Your task to perform on an android device: search for starred emails in the gmail app Image 0: 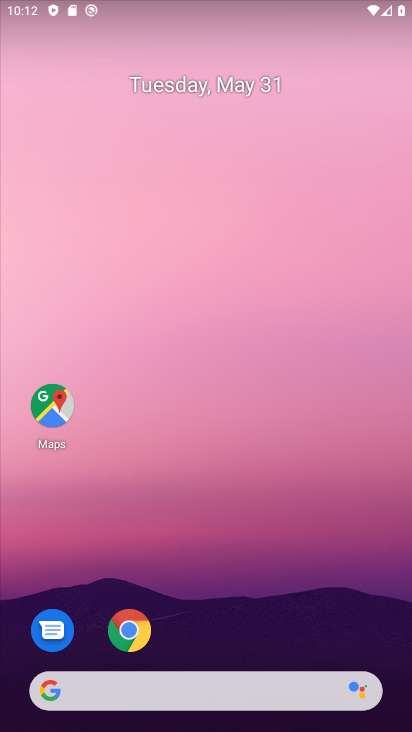
Step 0: drag from (255, 634) to (262, 134)
Your task to perform on an android device: search for starred emails in the gmail app Image 1: 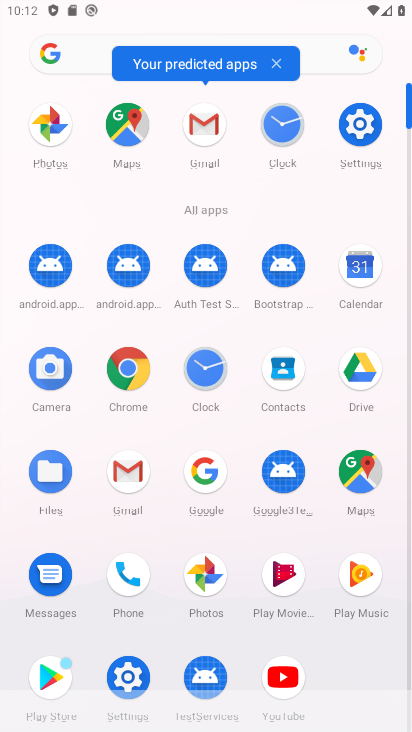
Step 1: click (214, 127)
Your task to perform on an android device: search for starred emails in the gmail app Image 2: 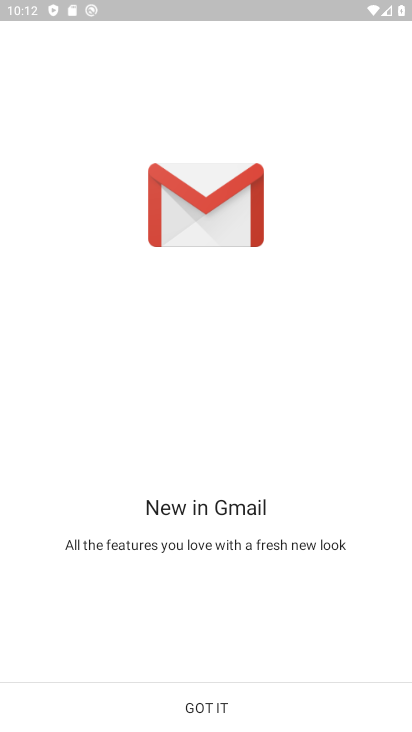
Step 2: click (214, 673)
Your task to perform on an android device: search for starred emails in the gmail app Image 3: 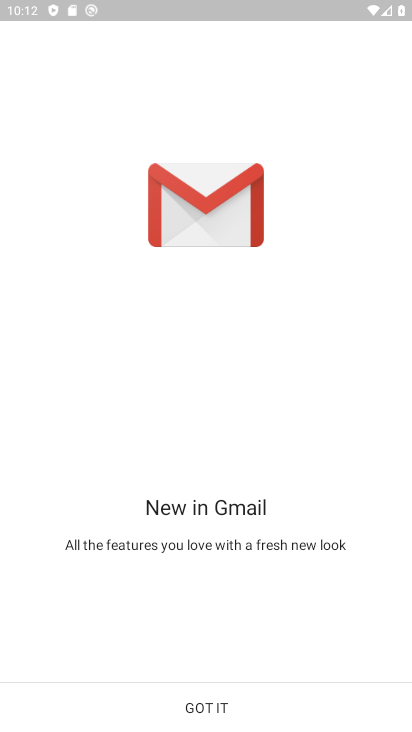
Step 3: click (215, 690)
Your task to perform on an android device: search for starred emails in the gmail app Image 4: 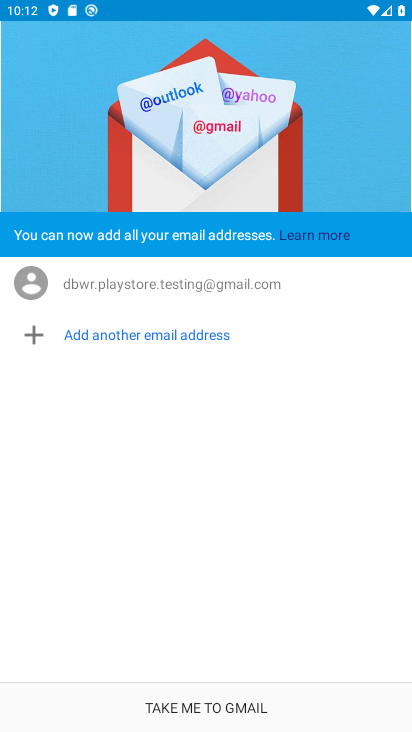
Step 4: click (191, 700)
Your task to perform on an android device: search for starred emails in the gmail app Image 5: 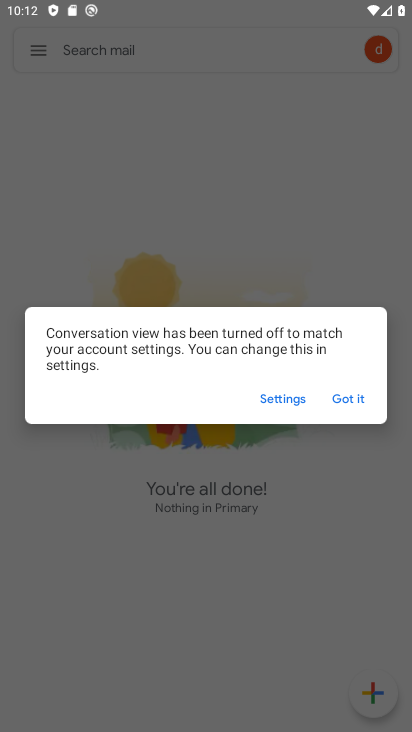
Step 5: click (341, 394)
Your task to perform on an android device: search for starred emails in the gmail app Image 6: 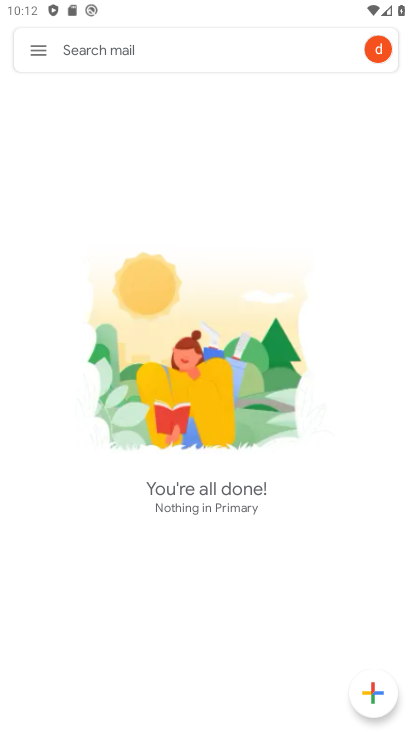
Step 6: click (39, 40)
Your task to perform on an android device: search for starred emails in the gmail app Image 7: 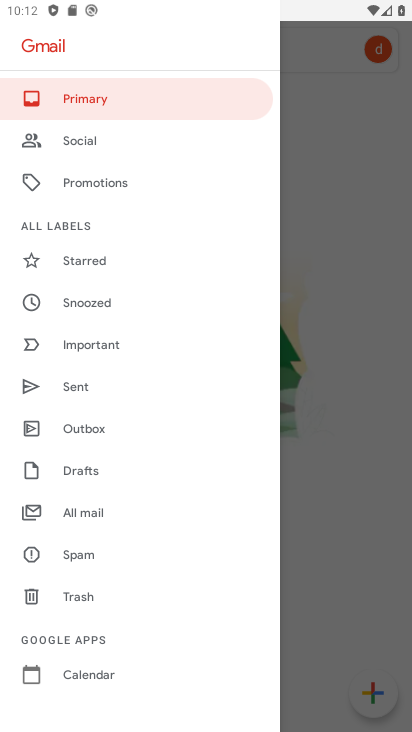
Step 7: click (82, 264)
Your task to perform on an android device: search for starred emails in the gmail app Image 8: 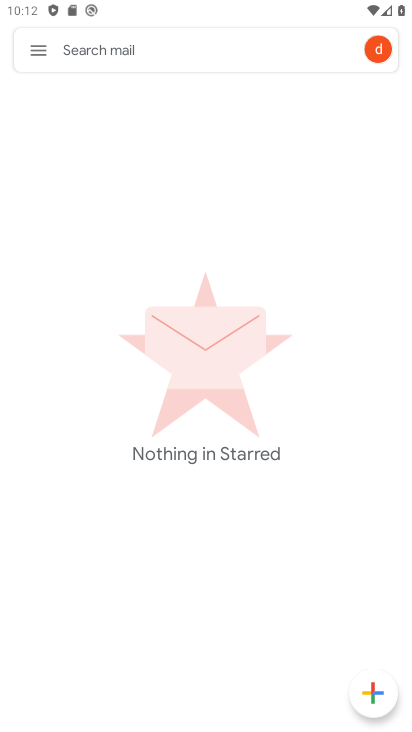
Step 8: task complete